Your task to perform on an android device: Go to display settings Image 0: 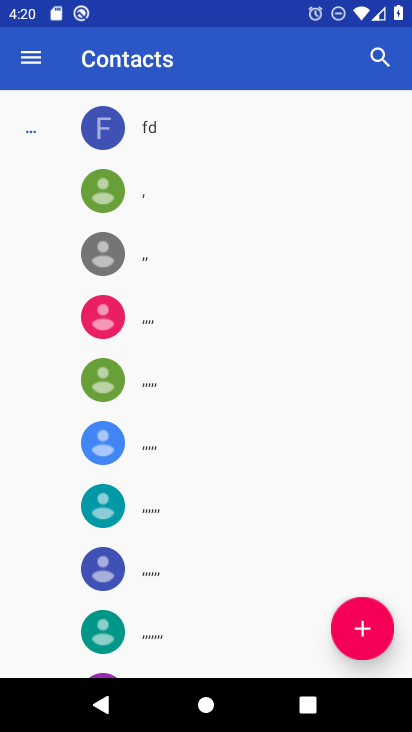
Step 0: press home button
Your task to perform on an android device: Go to display settings Image 1: 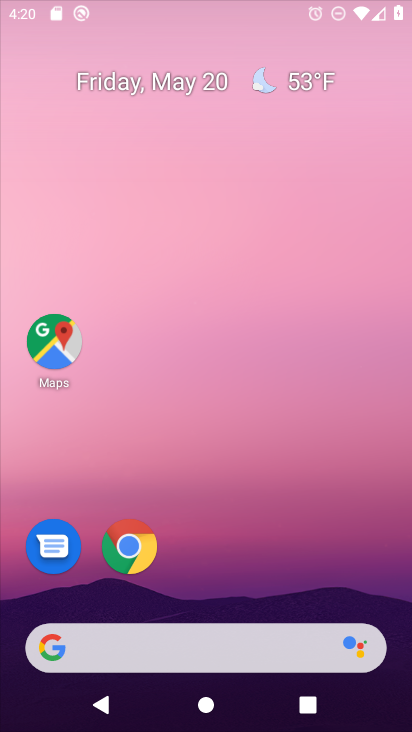
Step 1: drag from (233, 576) to (238, 133)
Your task to perform on an android device: Go to display settings Image 2: 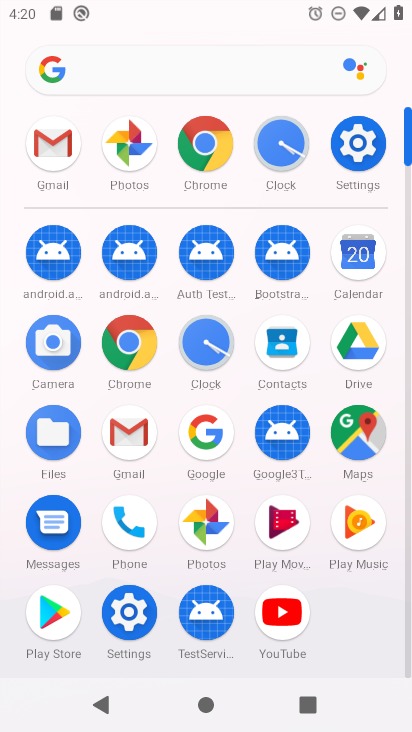
Step 2: click (355, 144)
Your task to perform on an android device: Go to display settings Image 3: 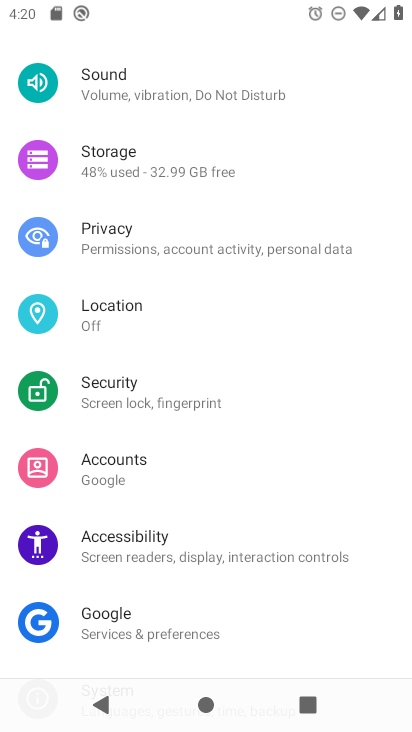
Step 3: drag from (172, 226) to (175, 600)
Your task to perform on an android device: Go to display settings Image 4: 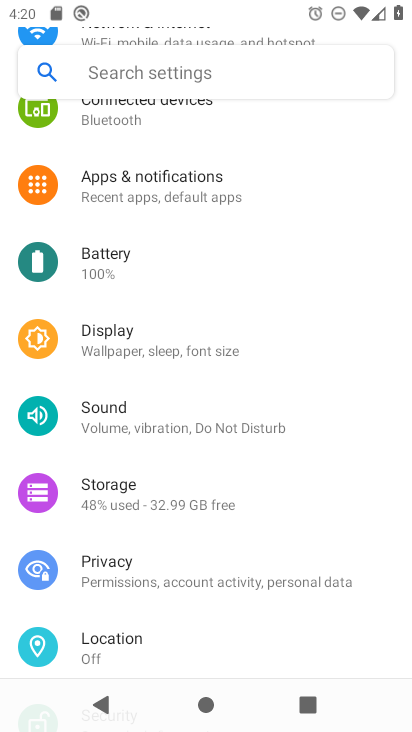
Step 4: click (132, 355)
Your task to perform on an android device: Go to display settings Image 5: 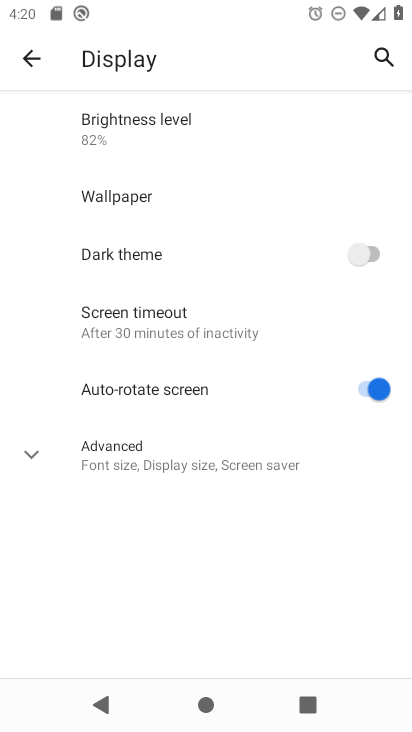
Step 5: task complete